Your task to perform on an android device: Open Chrome and go to settings Image 0: 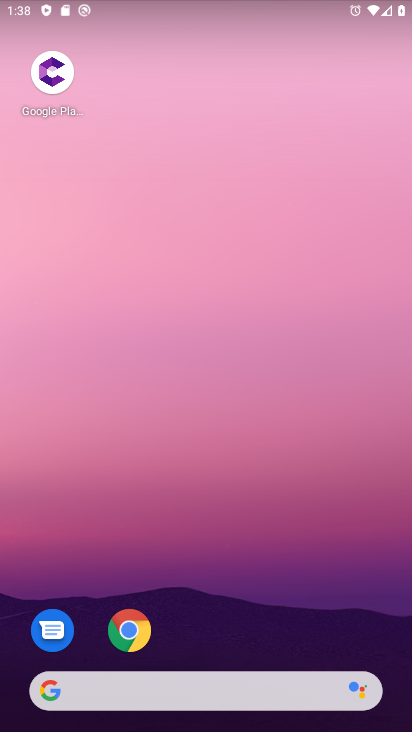
Step 0: drag from (381, 532) to (358, 104)
Your task to perform on an android device: Open Chrome and go to settings Image 1: 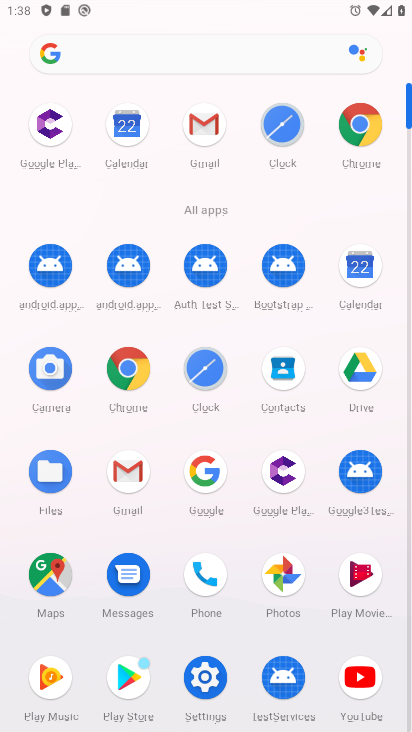
Step 1: click (125, 380)
Your task to perform on an android device: Open Chrome and go to settings Image 2: 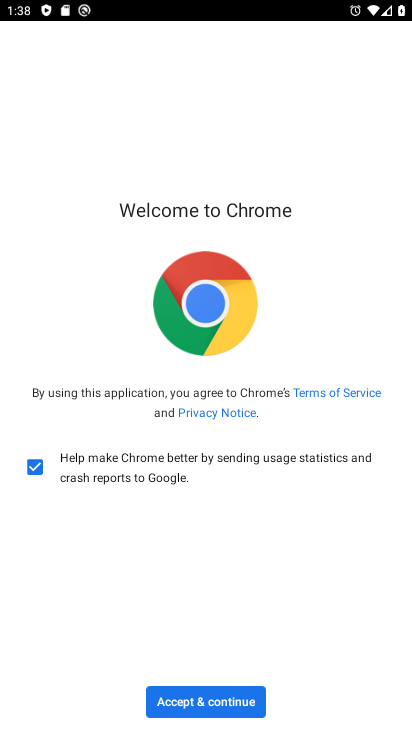
Step 2: click (179, 710)
Your task to perform on an android device: Open Chrome and go to settings Image 3: 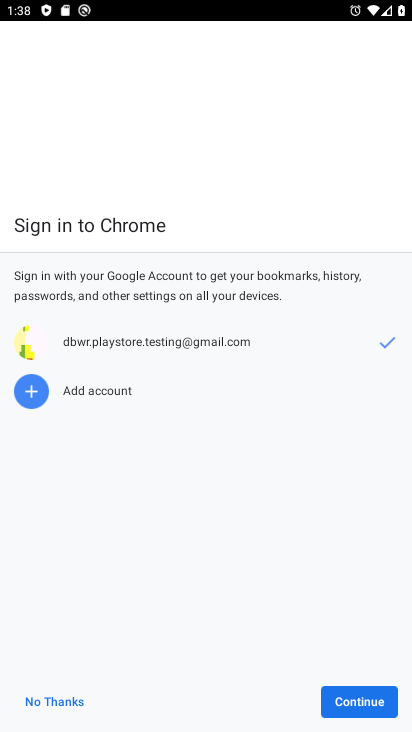
Step 3: click (352, 693)
Your task to perform on an android device: Open Chrome and go to settings Image 4: 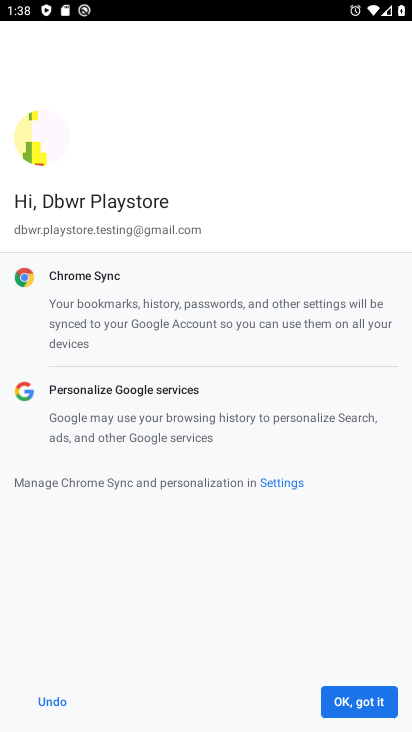
Step 4: click (357, 701)
Your task to perform on an android device: Open Chrome and go to settings Image 5: 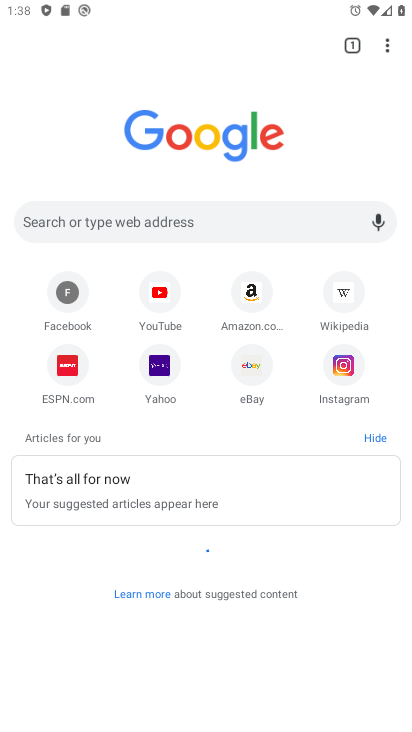
Step 5: task complete